Your task to perform on an android device: Show me the alarms in the clock app Image 0: 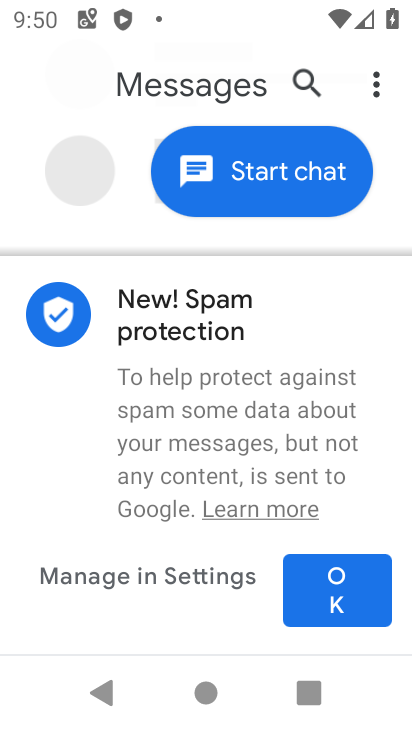
Step 0: press home button
Your task to perform on an android device: Show me the alarms in the clock app Image 1: 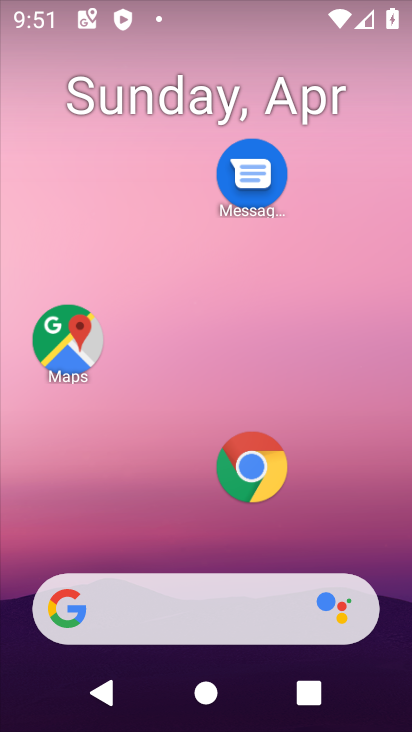
Step 1: drag from (183, 515) to (244, 38)
Your task to perform on an android device: Show me the alarms in the clock app Image 2: 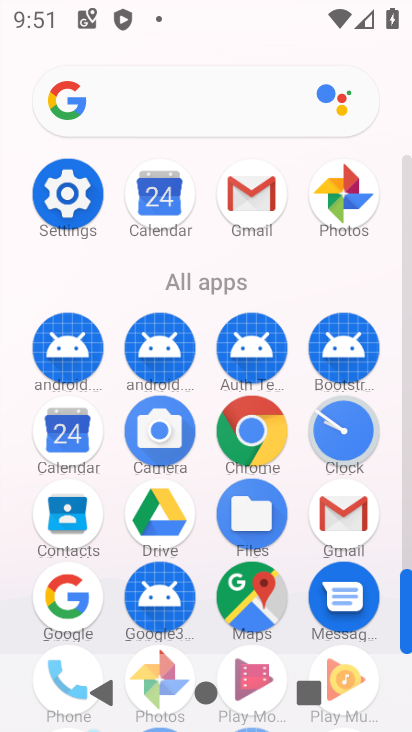
Step 2: click (336, 445)
Your task to perform on an android device: Show me the alarms in the clock app Image 3: 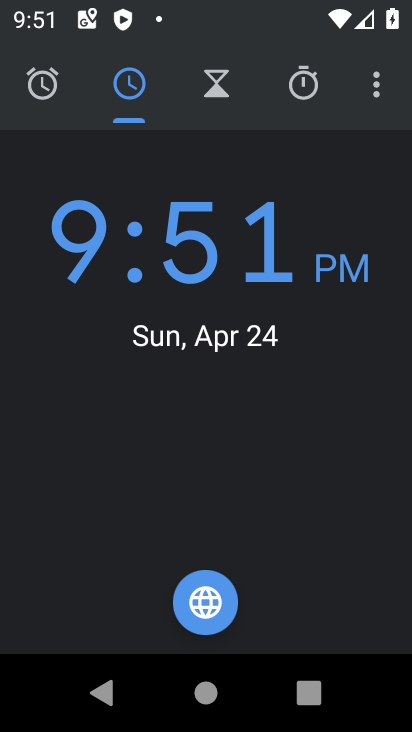
Step 3: click (37, 79)
Your task to perform on an android device: Show me the alarms in the clock app Image 4: 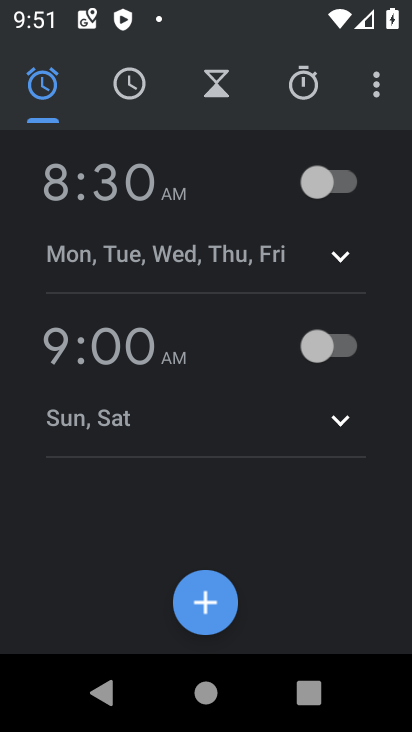
Step 4: task complete